Your task to perform on an android device: Show me the best rated 42 inch TV on Walmart. Image 0: 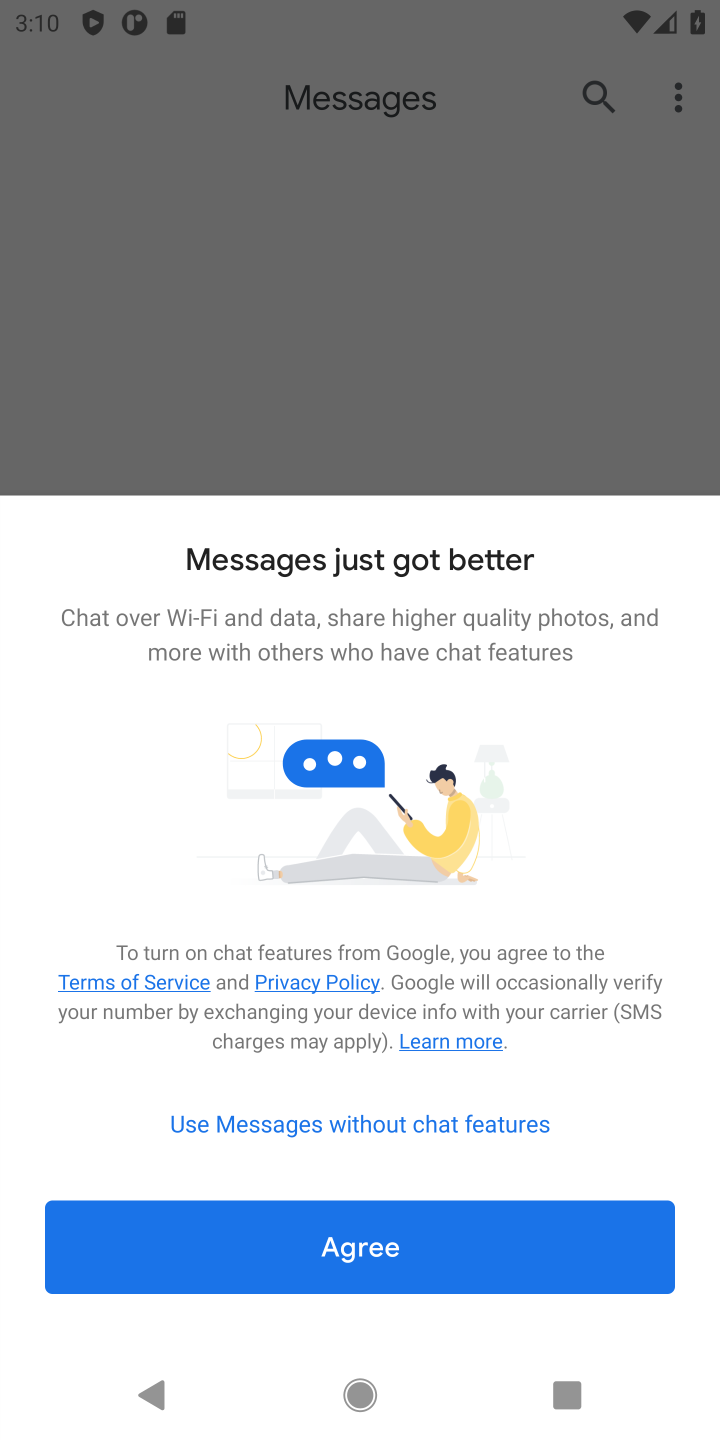
Step 0: click (414, 1253)
Your task to perform on an android device: Show me the best rated 42 inch TV on Walmart. Image 1: 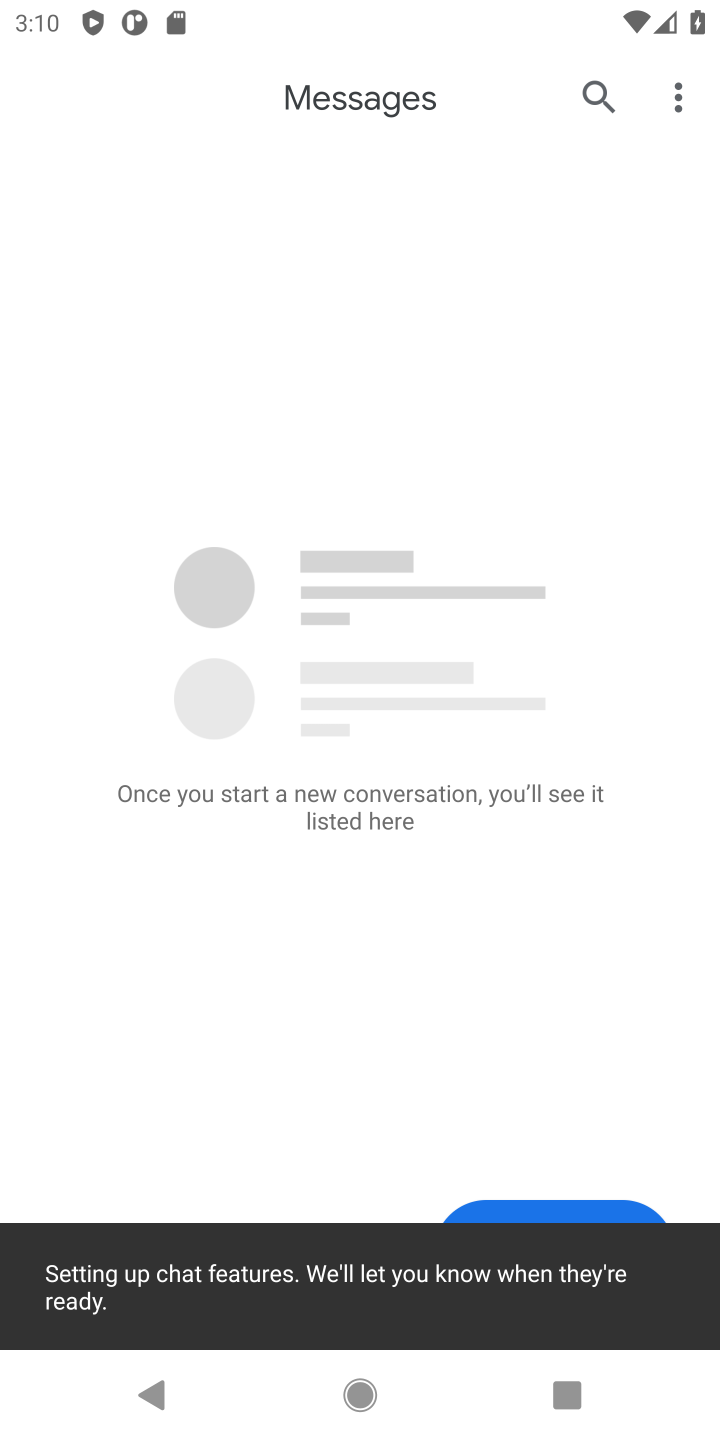
Step 1: press home button
Your task to perform on an android device: Show me the best rated 42 inch TV on Walmart. Image 2: 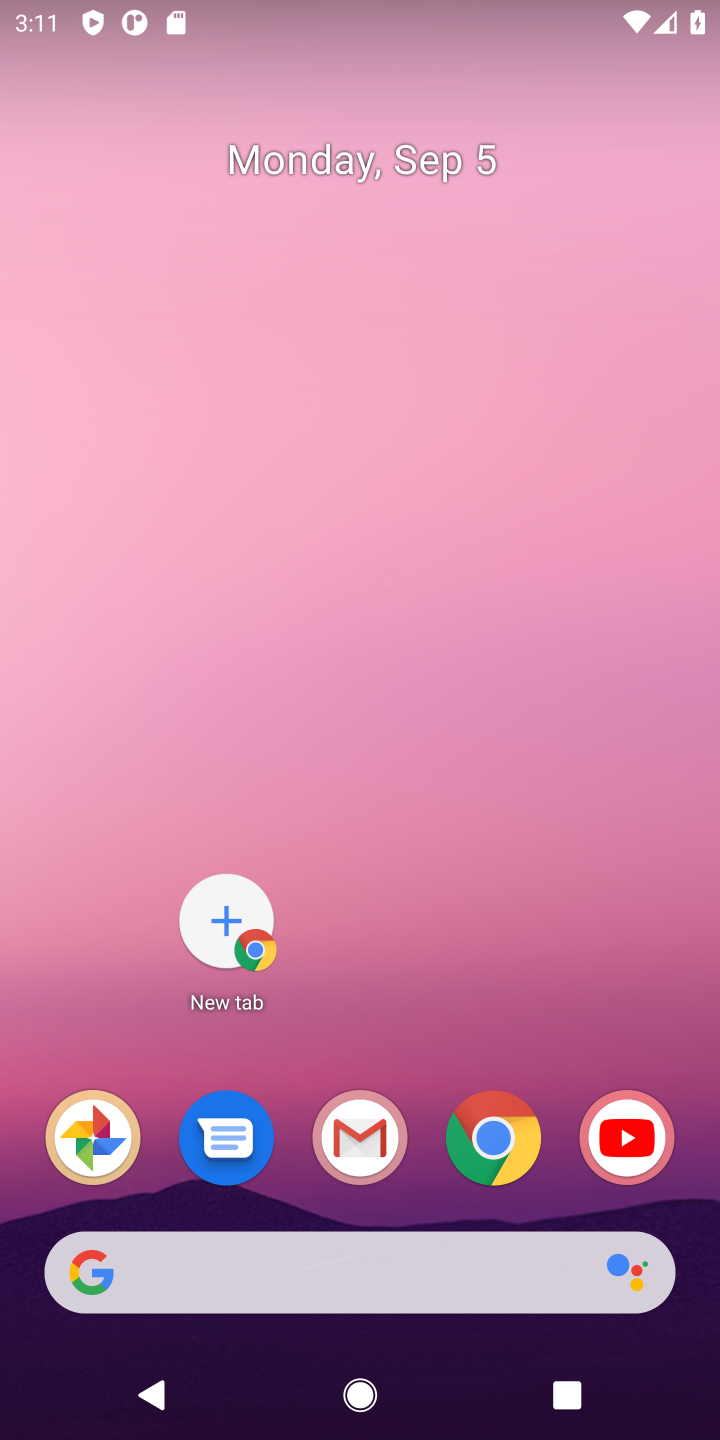
Step 2: click (514, 1149)
Your task to perform on an android device: Show me the best rated 42 inch TV on Walmart. Image 3: 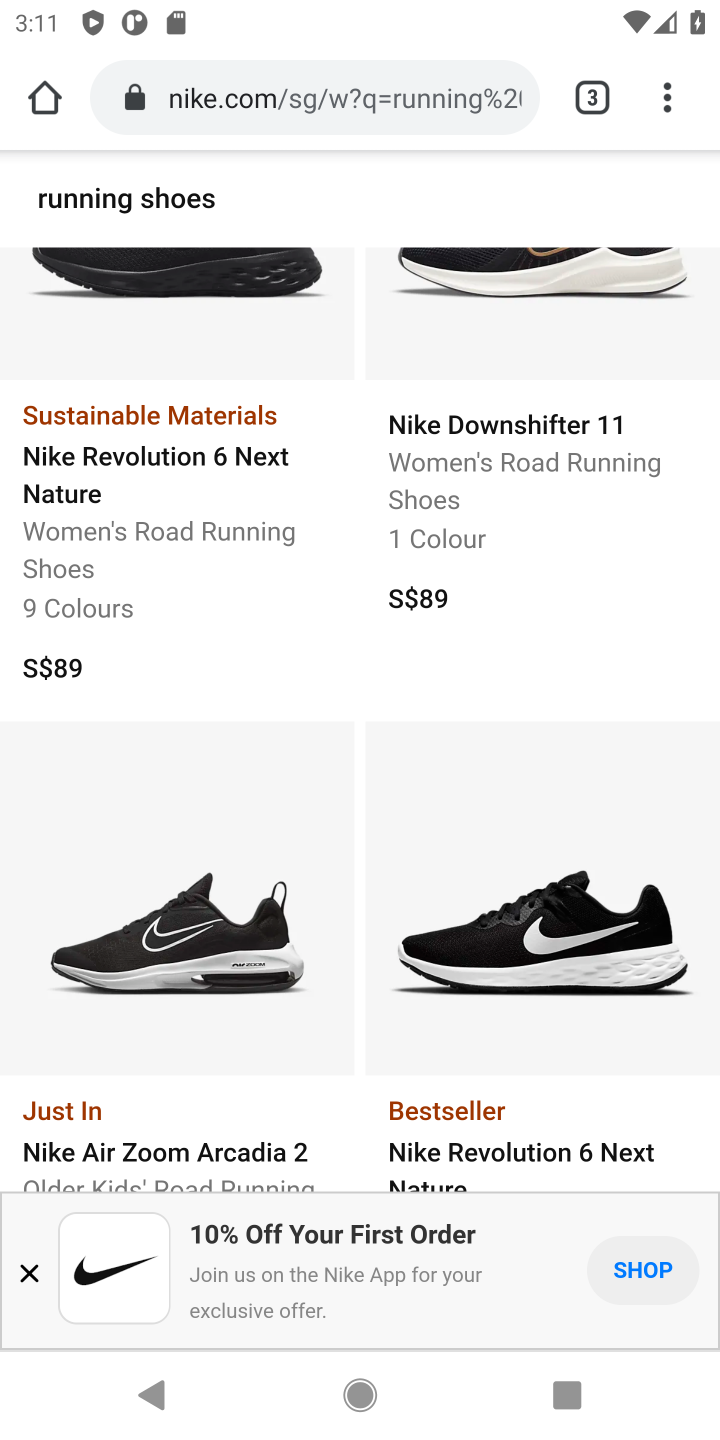
Step 3: click (266, 93)
Your task to perform on an android device: Show me the best rated 42 inch TV on Walmart. Image 4: 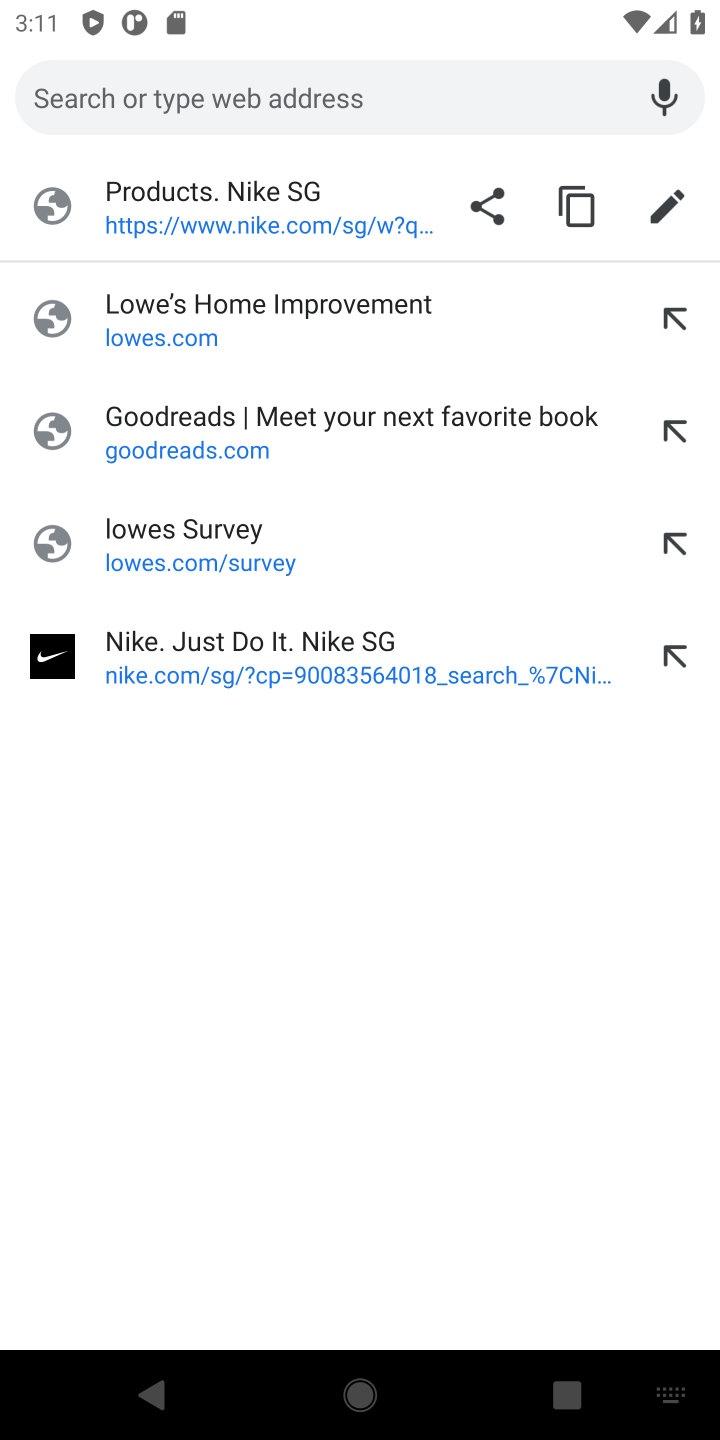
Step 4: type "walmart"
Your task to perform on an android device: Show me the best rated 42 inch TV on Walmart. Image 5: 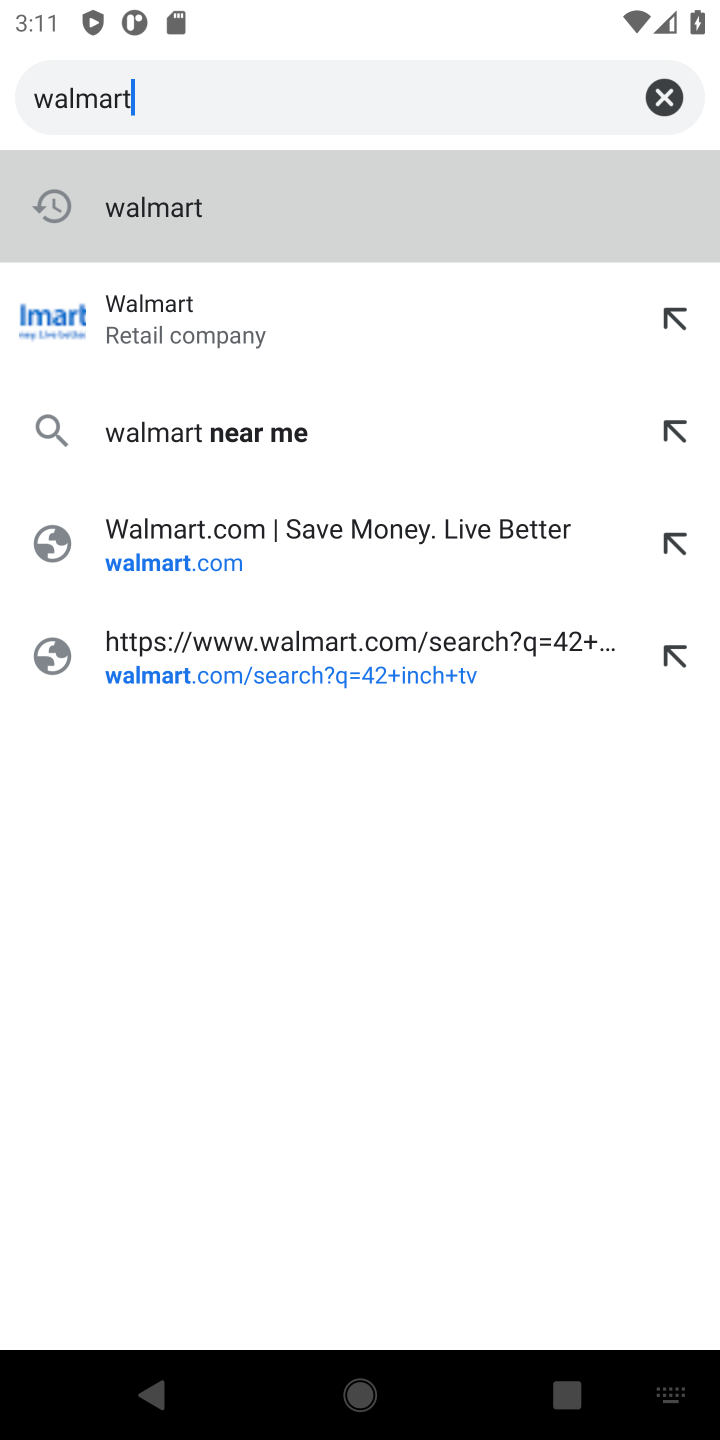
Step 5: click (186, 338)
Your task to perform on an android device: Show me the best rated 42 inch TV on Walmart. Image 6: 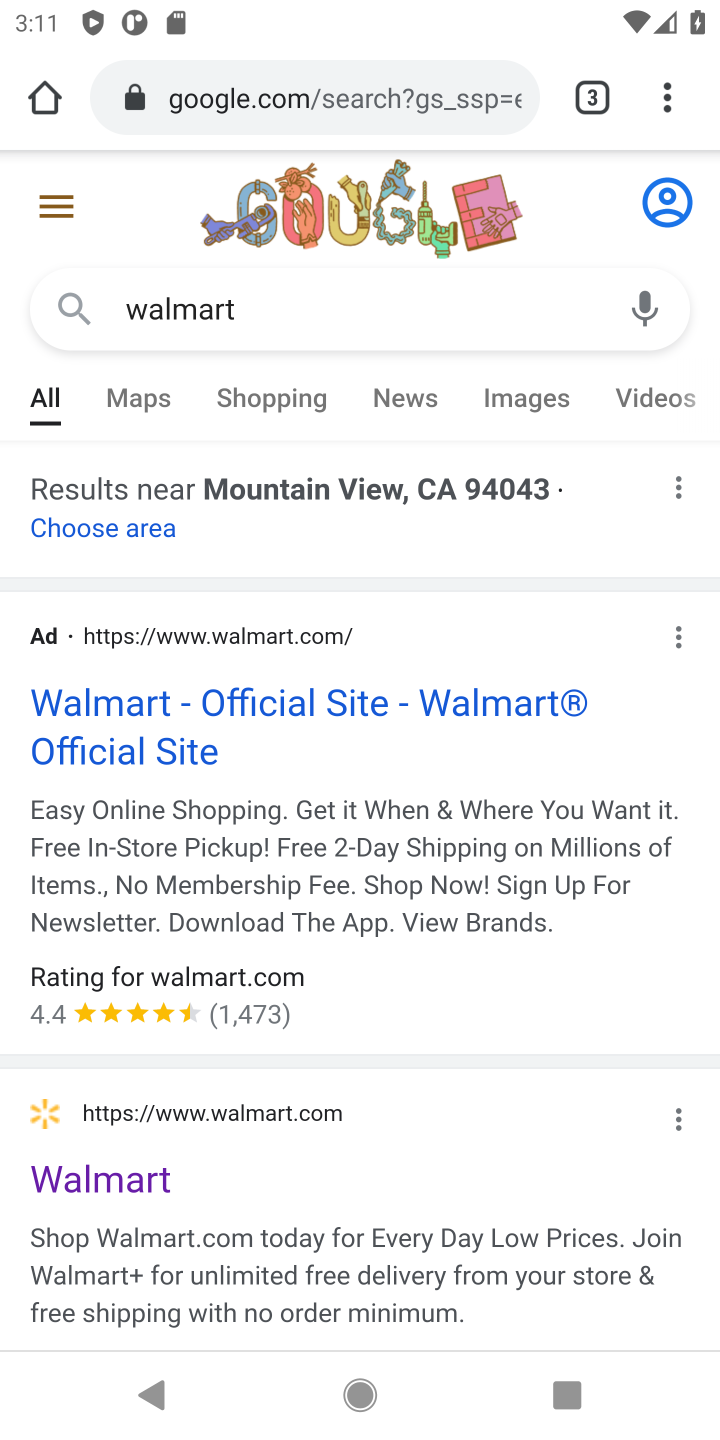
Step 6: click (80, 1180)
Your task to perform on an android device: Show me the best rated 42 inch TV on Walmart. Image 7: 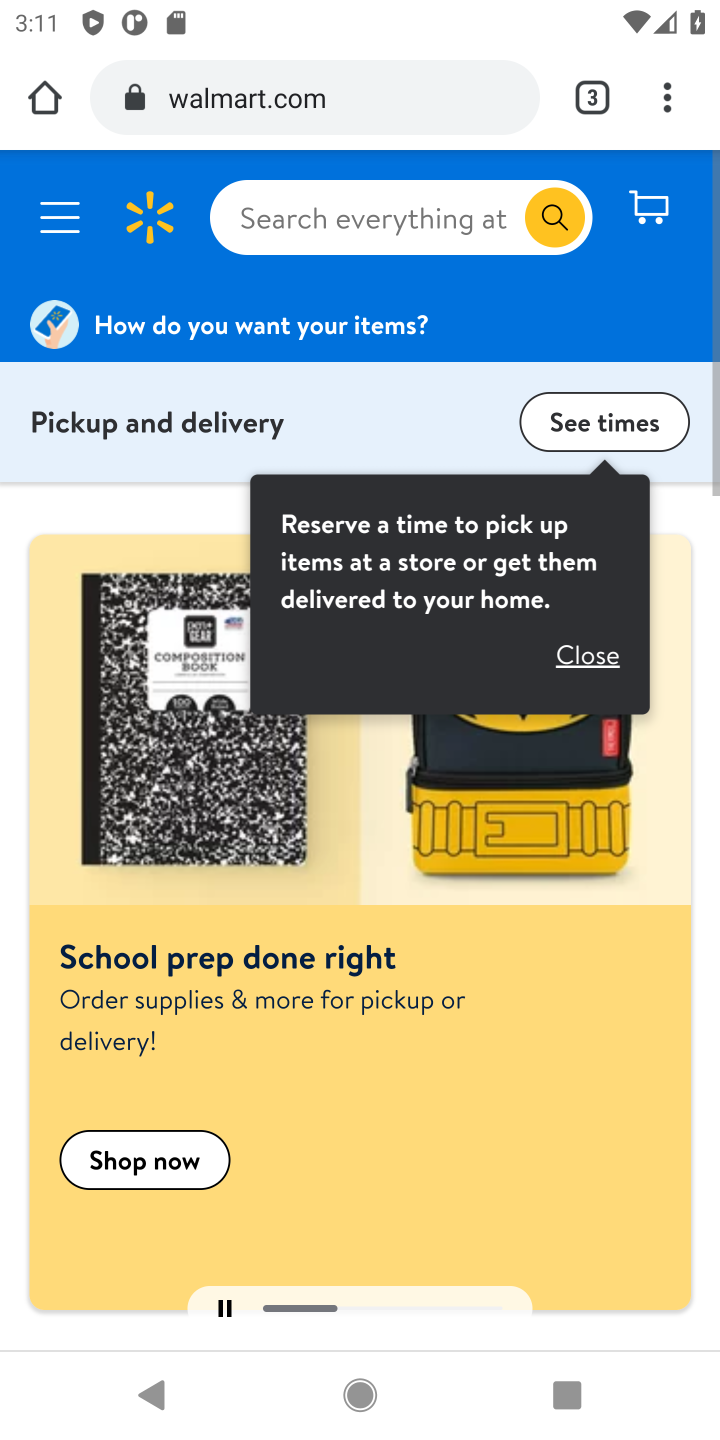
Step 7: click (367, 224)
Your task to perform on an android device: Show me the best rated 42 inch TV on Walmart. Image 8: 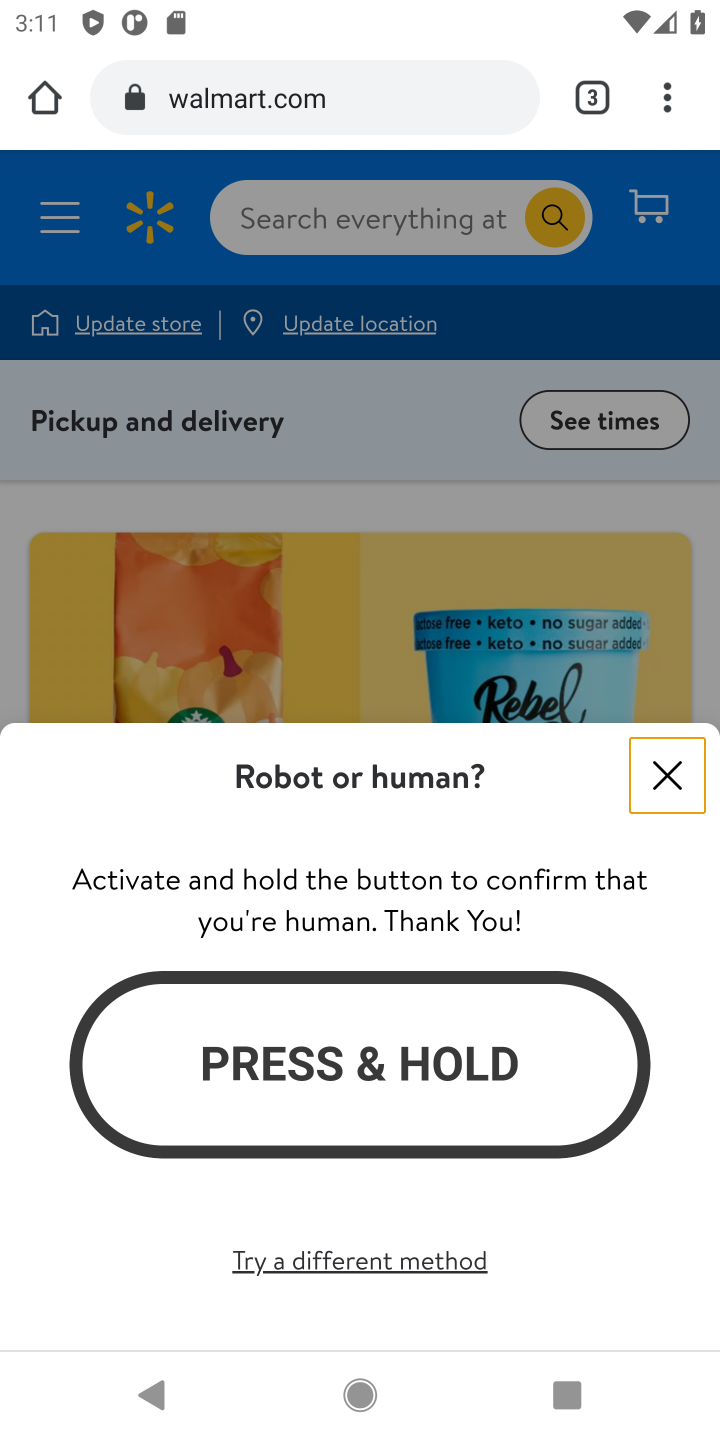
Step 8: click (364, 214)
Your task to perform on an android device: Show me the best rated 42 inch TV on Walmart. Image 9: 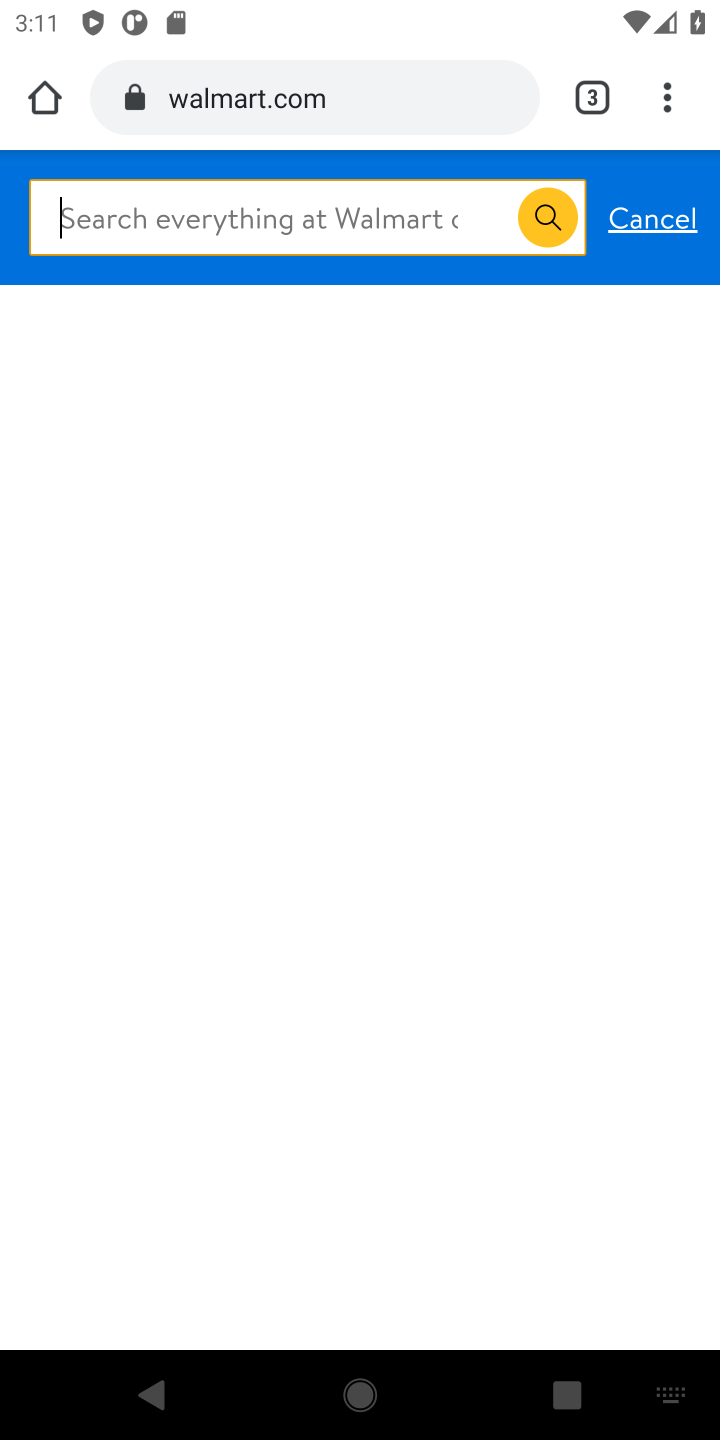
Step 9: type "42 inch tv"
Your task to perform on an android device: Show me the best rated 42 inch TV on Walmart. Image 10: 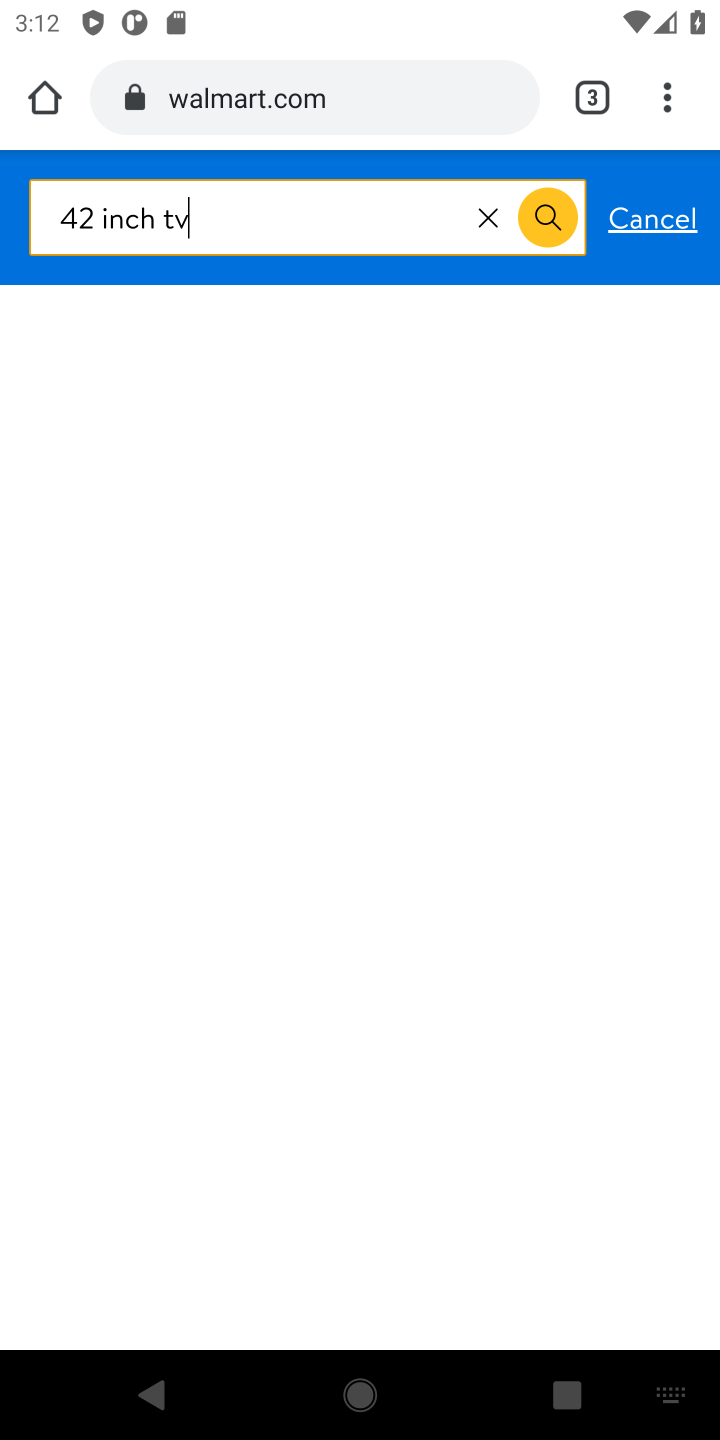
Step 10: type ""
Your task to perform on an android device: Show me the best rated 42 inch TV on Walmart. Image 11: 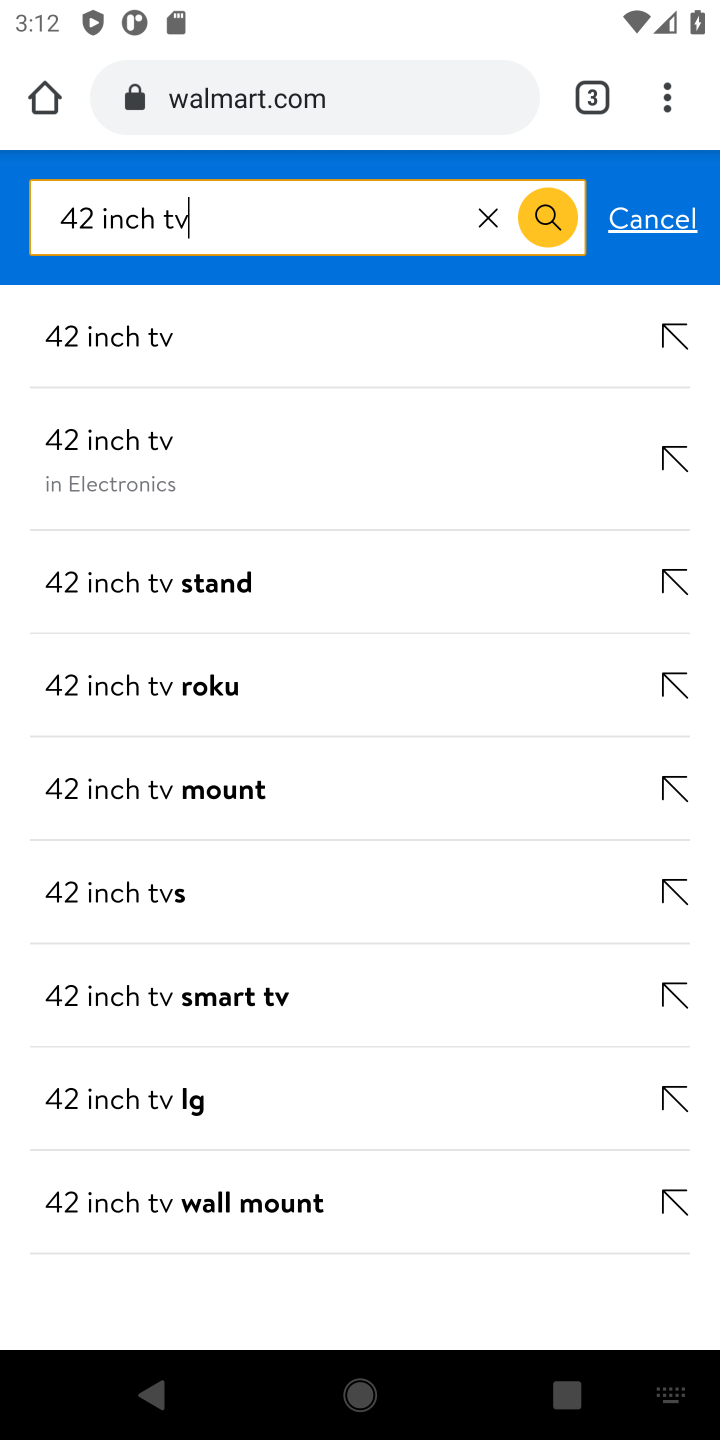
Step 11: click (106, 329)
Your task to perform on an android device: Show me the best rated 42 inch TV on Walmart. Image 12: 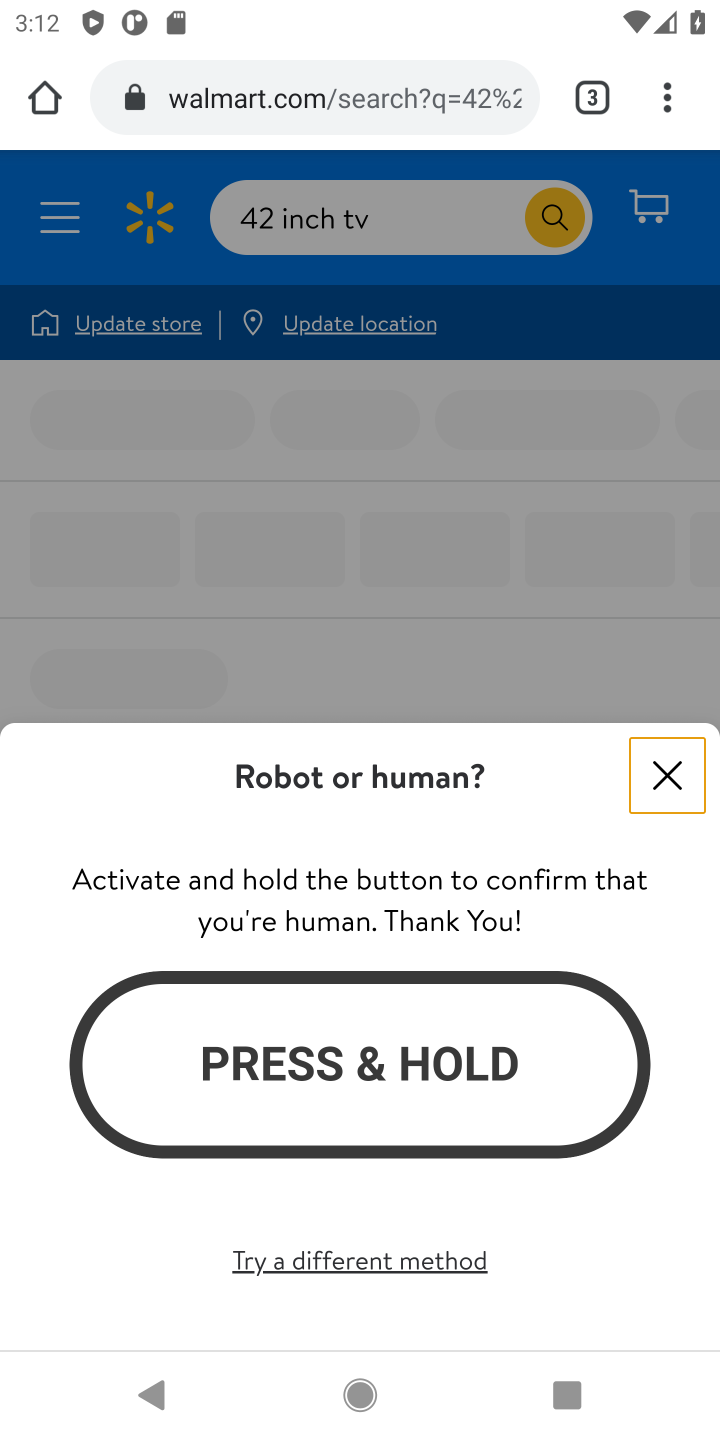
Step 12: click (671, 786)
Your task to perform on an android device: Show me the best rated 42 inch TV on Walmart. Image 13: 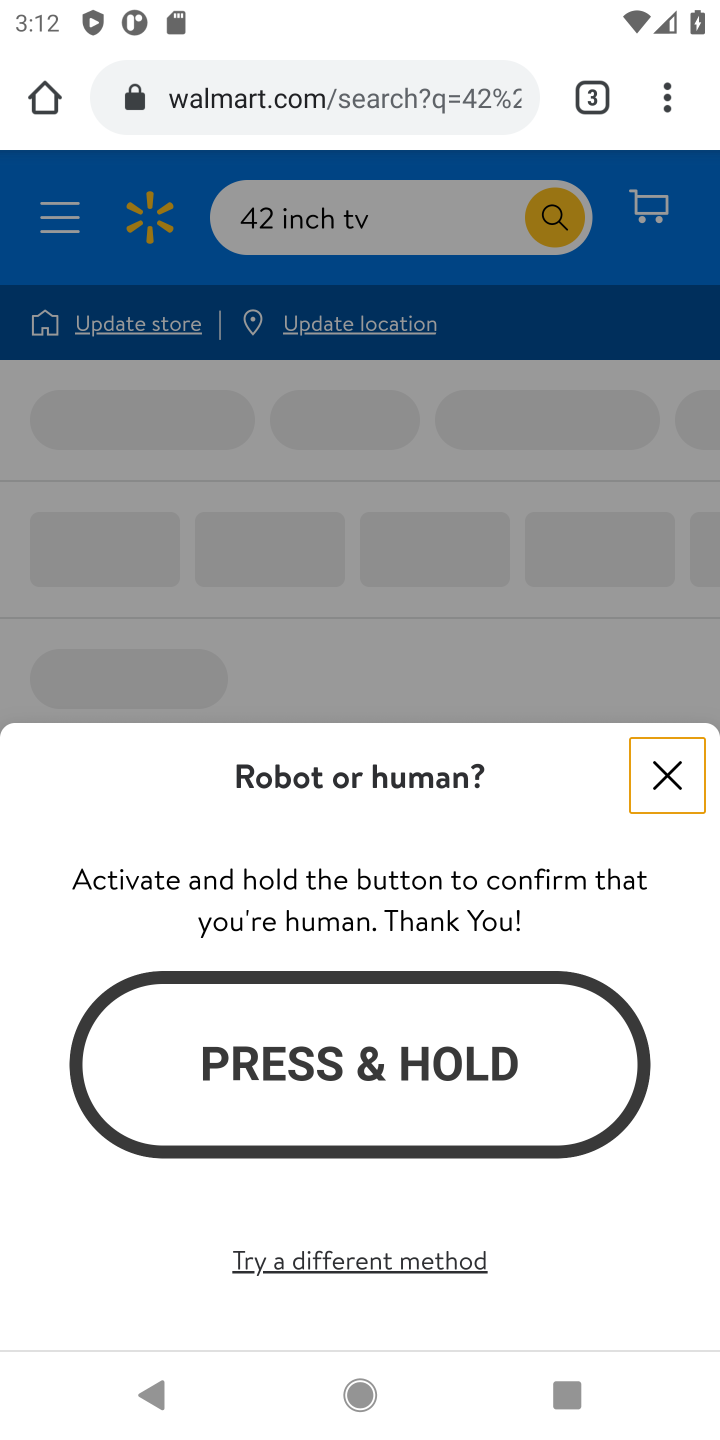
Step 13: click (653, 761)
Your task to perform on an android device: Show me the best rated 42 inch TV on Walmart. Image 14: 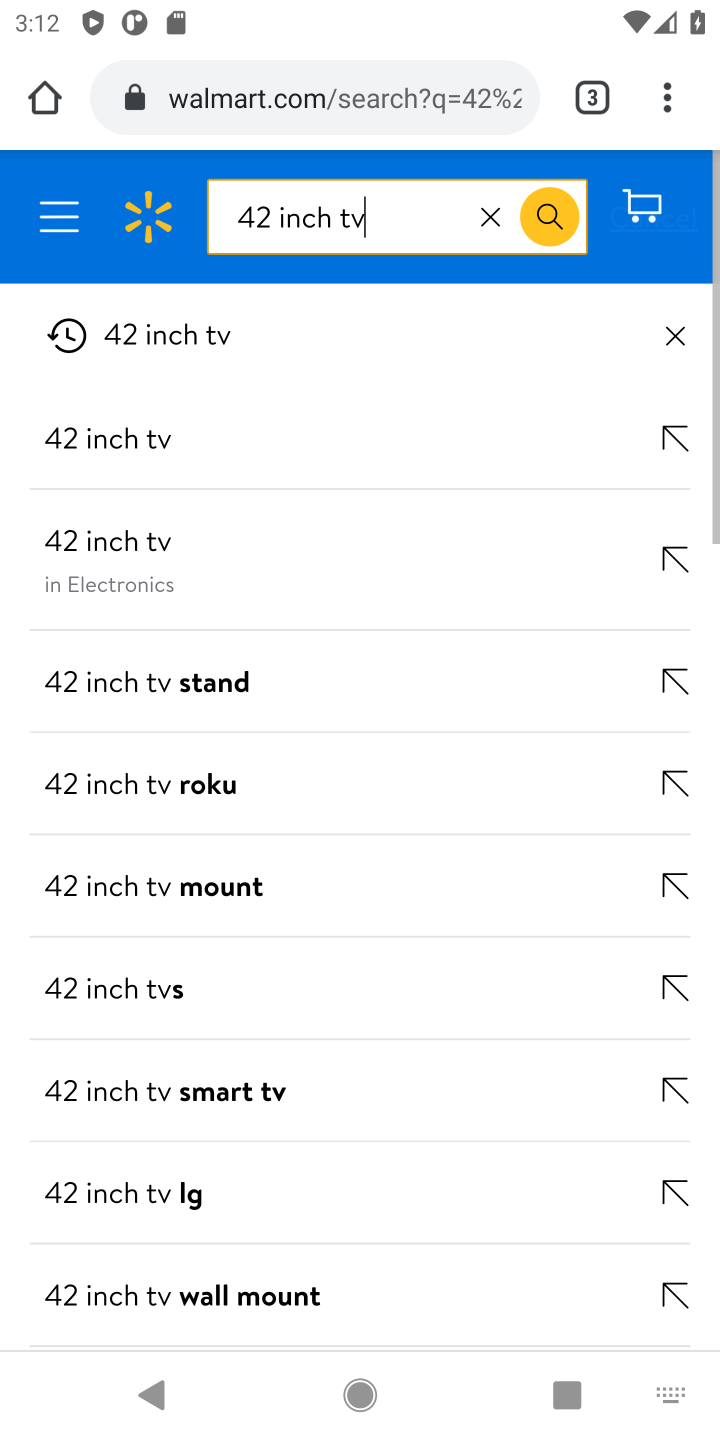
Step 14: click (74, 454)
Your task to perform on an android device: Show me the best rated 42 inch TV on Walmart. Image 15: 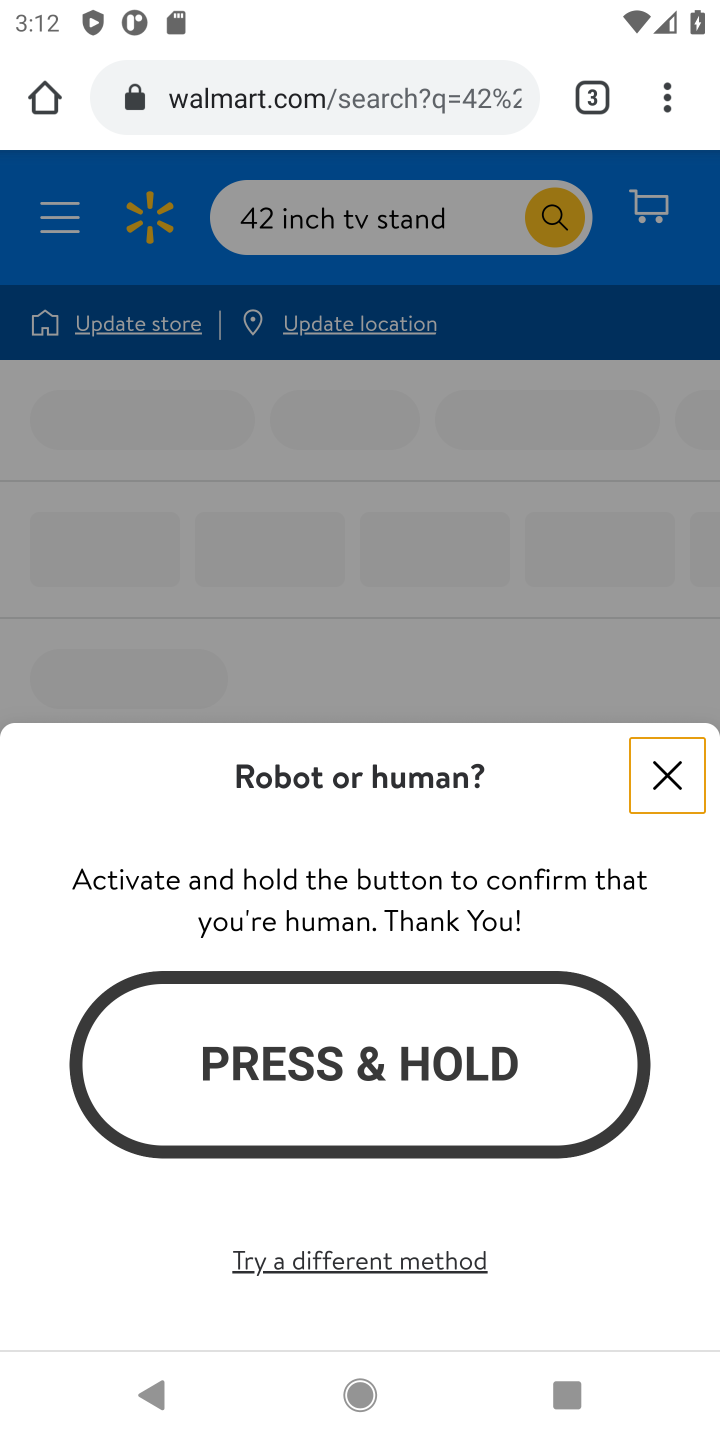
Step 15: click (671, 774)
Your task to perform on an android device: Show me the best rated 42 inch TV on Walmart. Image 16: 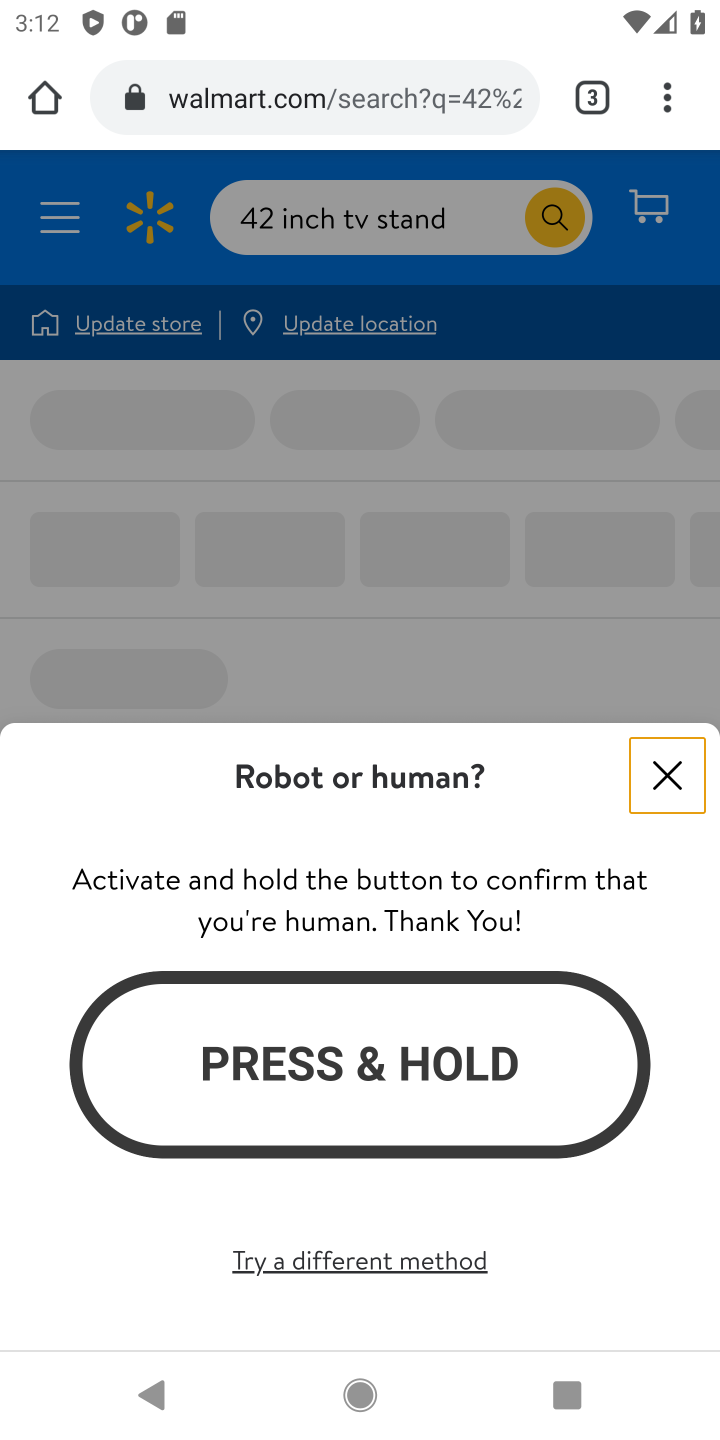
Step 16: click (674, 779)
Your task to perform on an android device: Show me the best rated 42 inch TV on Walmart. Image 17: 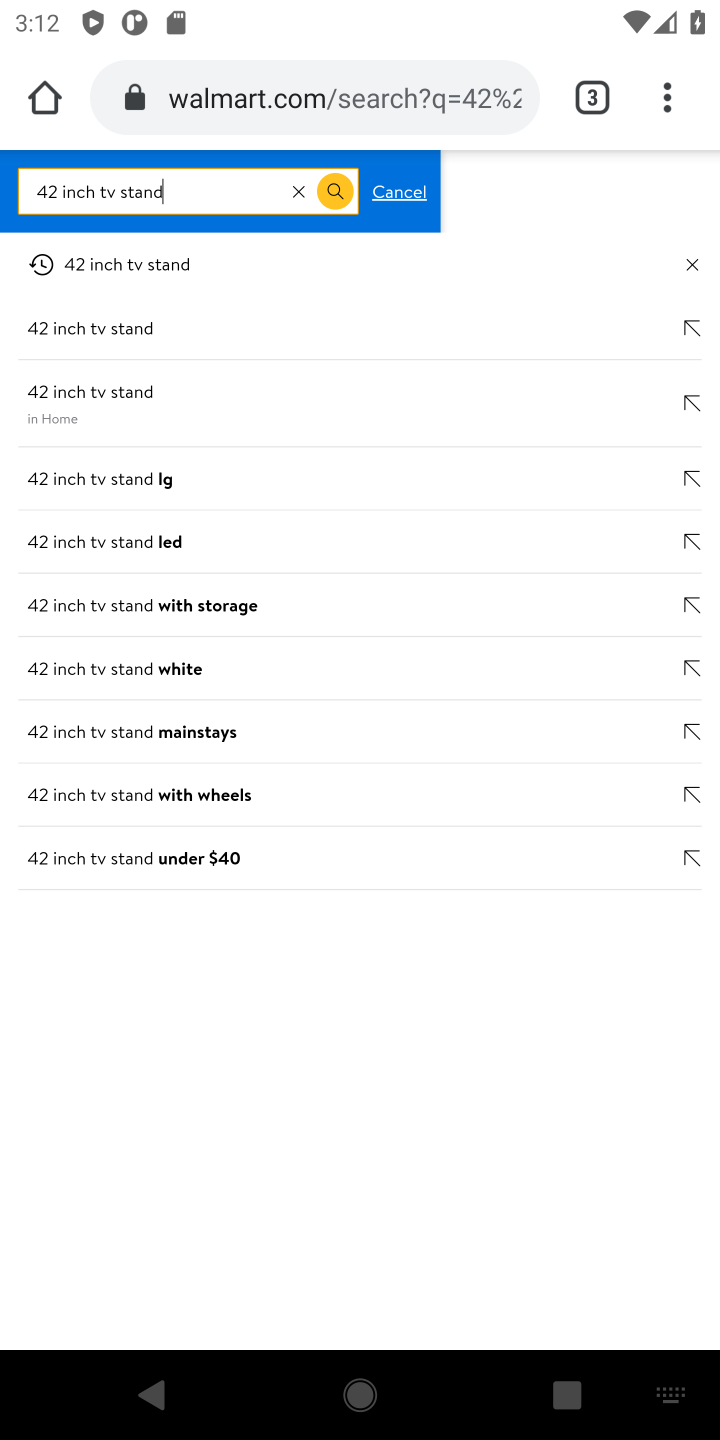
Step 17: click (124, 333)
Your task to perform on an android device: Show me the best rated 42 inch TV on Walmart. Image 18: 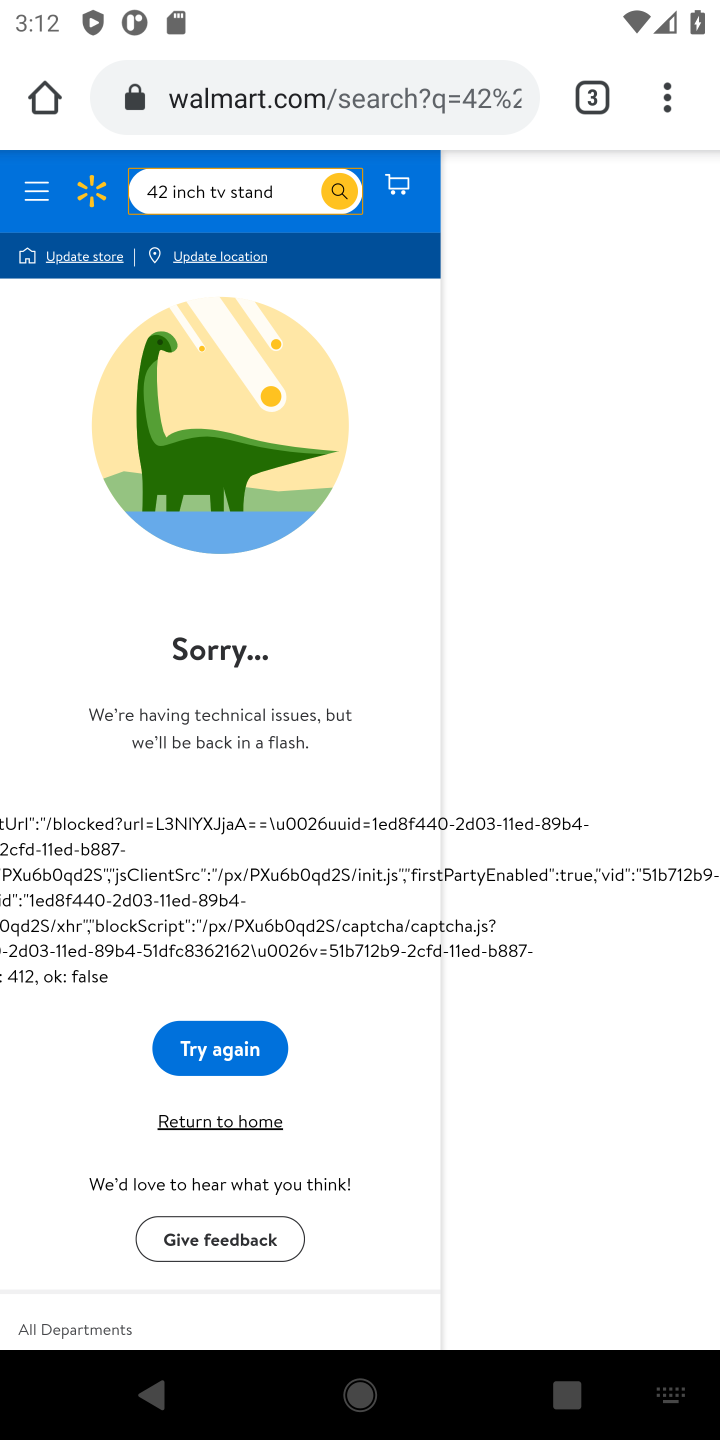
Step 18: task complete